Your task to perform on an android device: turn off wifi Image 0: 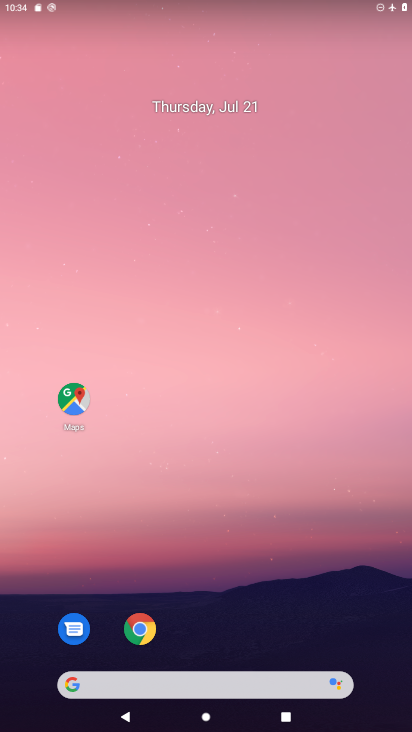
Step 0: drag from (206, 585) to (204, 128)
Your task to perform on an android device: turn off wifi Image 1: 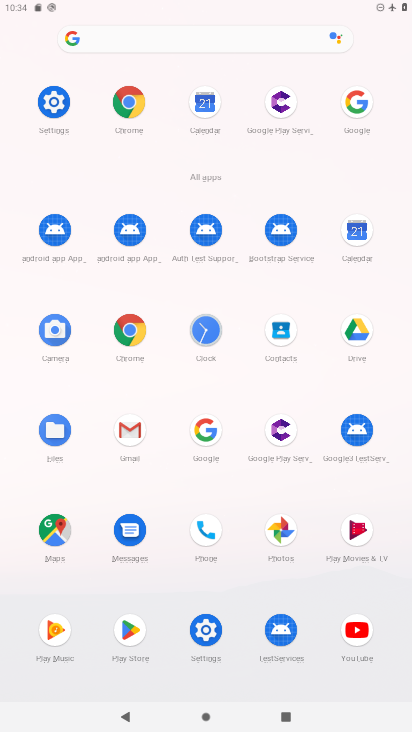
Step 1: click (57, 98)
Your task to perform on an android device: turn off wifi Image 2: 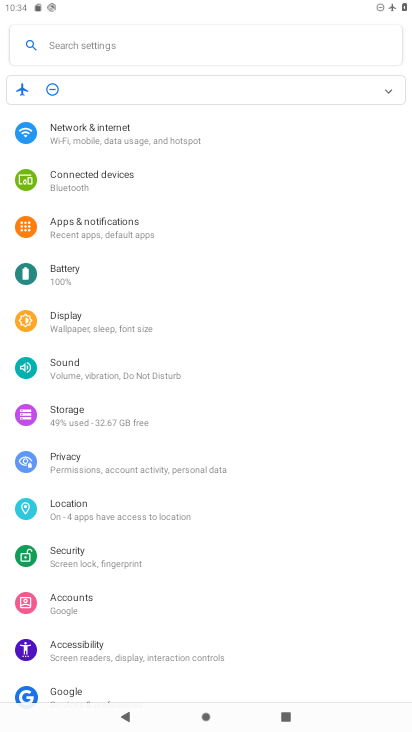
Step 2: click (105, 130)
Your task to perform on an android device: turn off wifi Image 3: 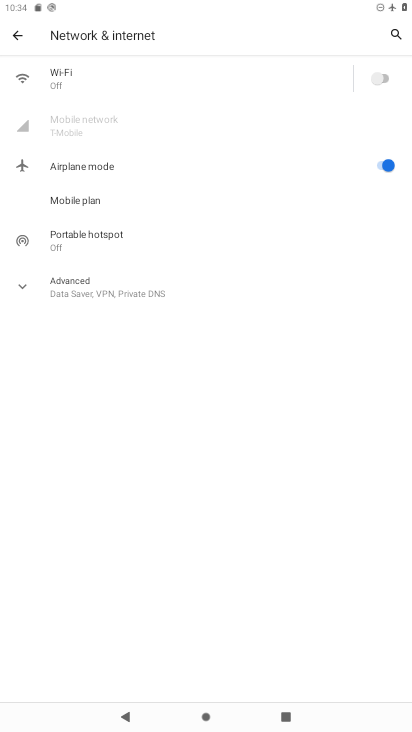
Step 3: task complete